Your task to perform on an android device: Open eBay Image 0: 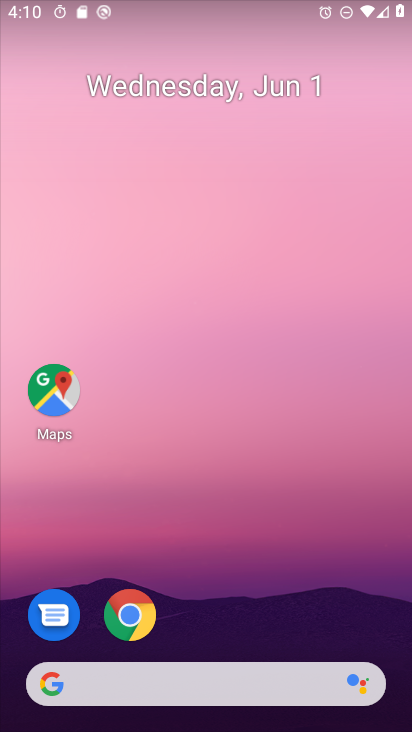
Step 0: drag from (335, 680) to (352, 7)
Your task to perform on an android device: Open eBay Image 1: 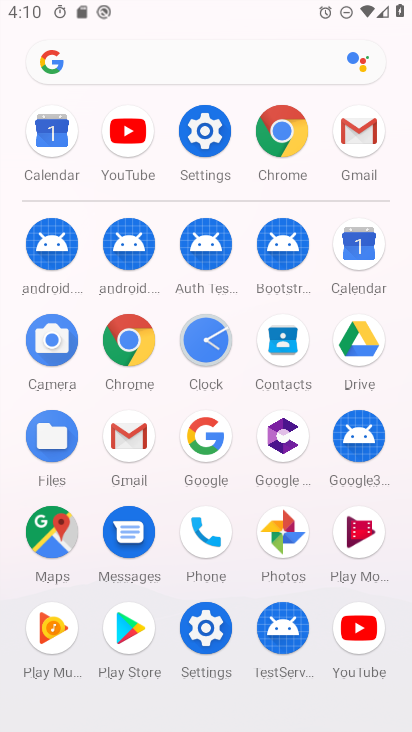
Step 1: click (128, 347)
Your task to perform on an android device: Open eBay Image 2: 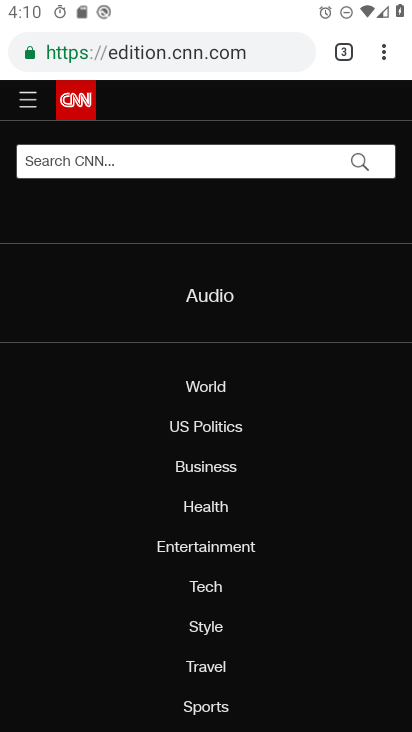
Step 2: click (217, 65)
Your task to perform on an android device: Open eBay Image 3: 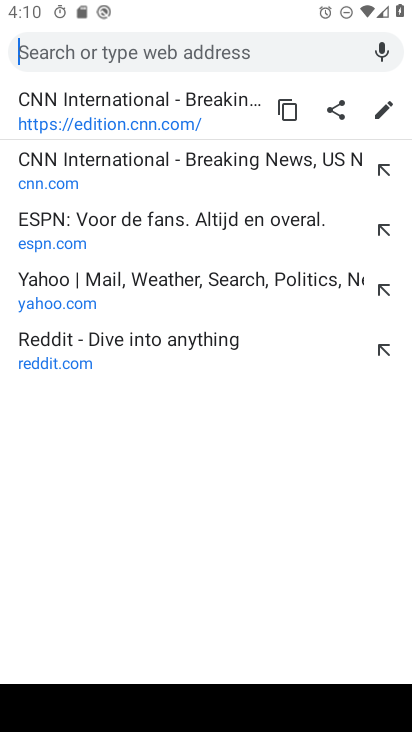
Step 3: type "ebay"
Your task to perform on an android device: Open eBay Image 4: 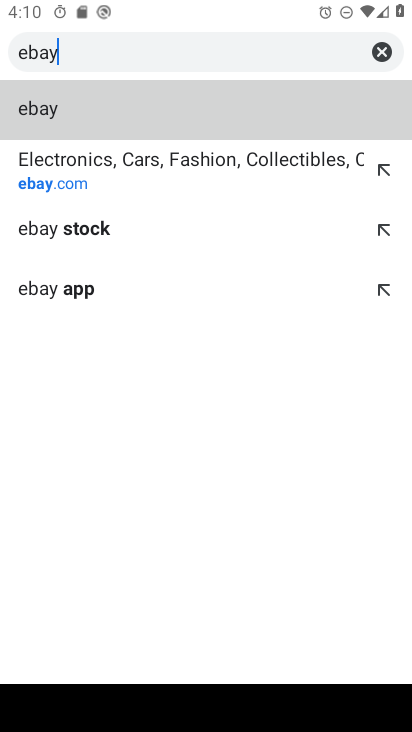
Step 4: click (74, 161)
Your task to perform on an android device: Open eBay Image 5: 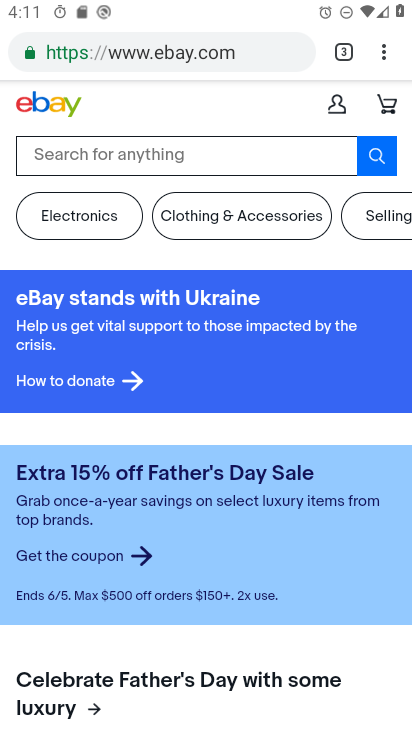
Step 5: task complete